Your task to perform on an android device: toggle data saver in the chrome app Image 0: 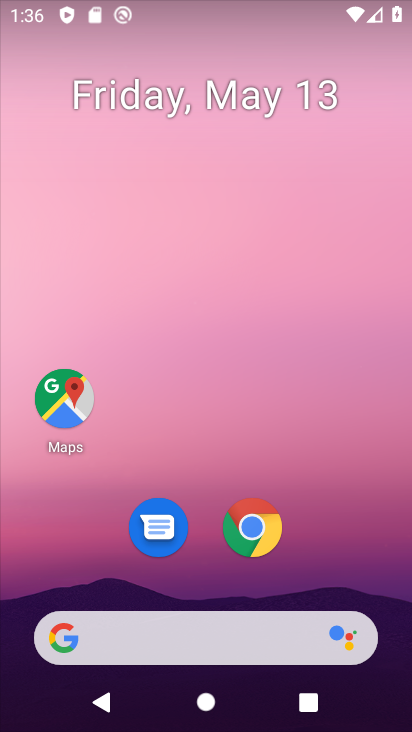
Step 0: click (249, 533)
Your task to perform on an android device: toggle data saver in the chrome app Image 1: 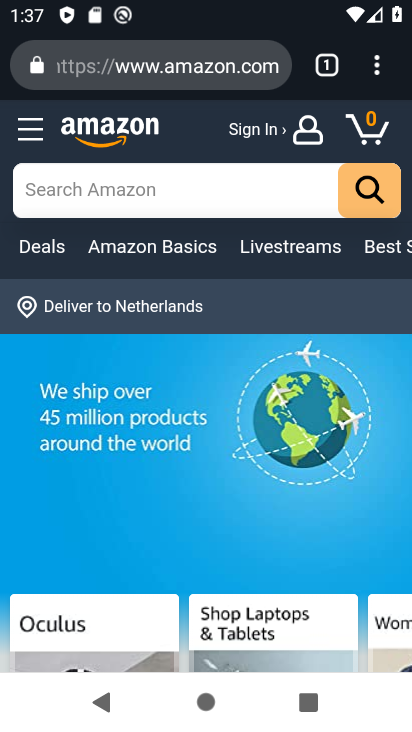
Step 1: click (392, 63)
Your task to perform on an android device: toggle data saver in the chrome app Image 2: 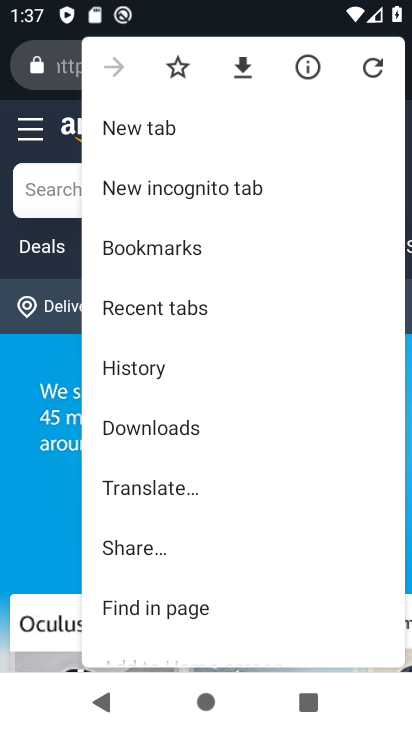
Step 2: drag from (207, 563) to (301, 195)
Your task to perform on an android device: toggle data saver in the chrome app Image 3: 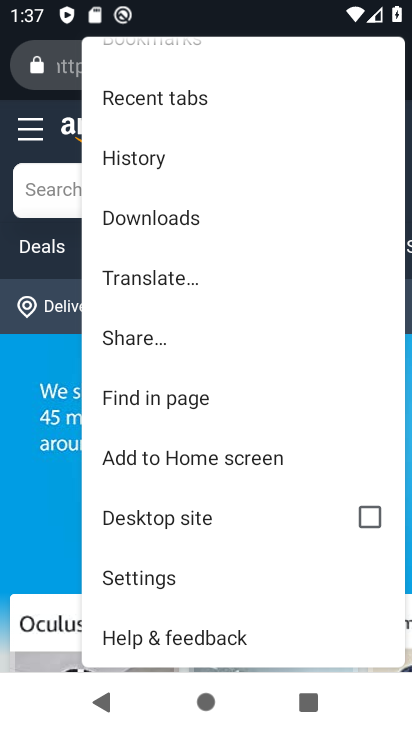
Step 3: click (164, 602)
Your task to perform on an android device: toggle data saver in the chrome app Image 4: 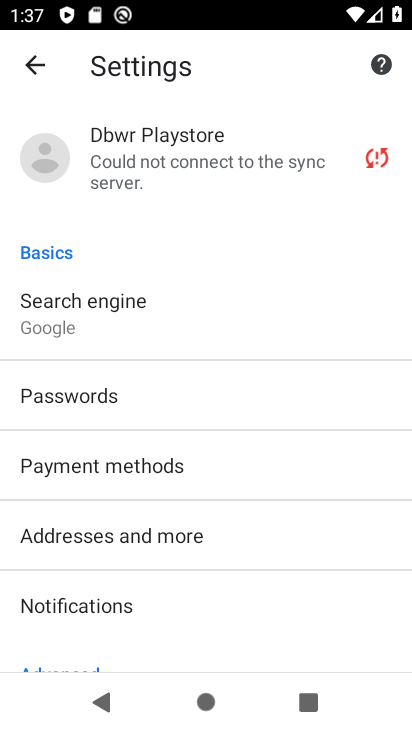
Step 4: drag from (184, 538) to (240, 196)
Your task to perform on an android device: toggle data saver in the chrome app Image 5: 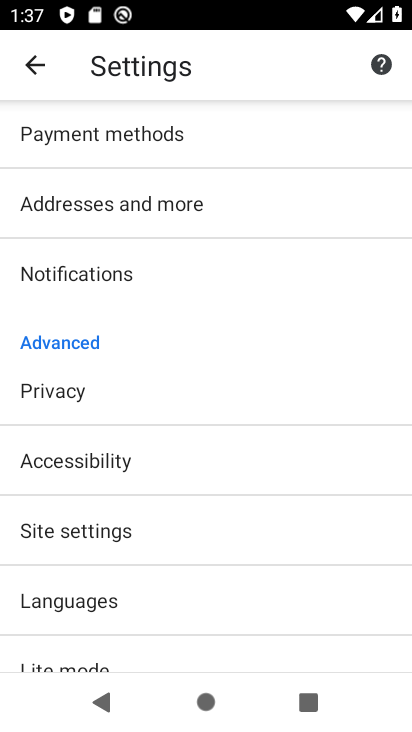
Step 5: click (122, 659)
Your task to perform on an android device: toggle data saver in the chrome app Image 6: 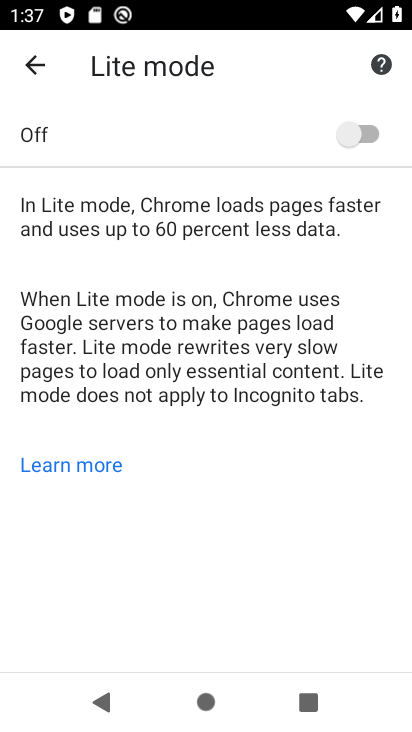
Step 6: task complete